Your task to perform on an android device: change the clock display to analog Image 0: 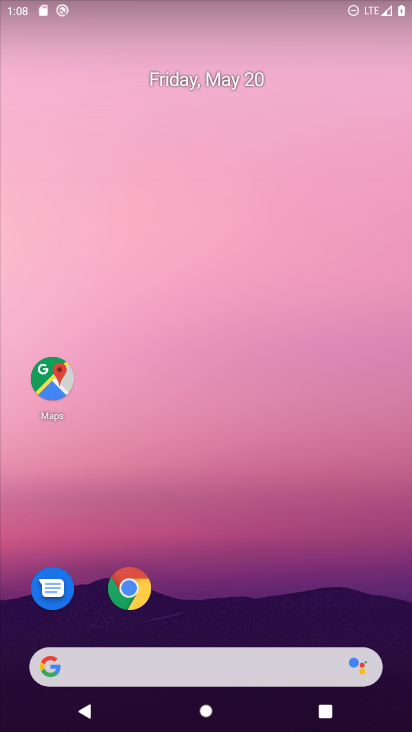
Step 0: drag from (368, 602) to (315, 229)
Your task to perform on an android device: change the clock display to analog Image 1: 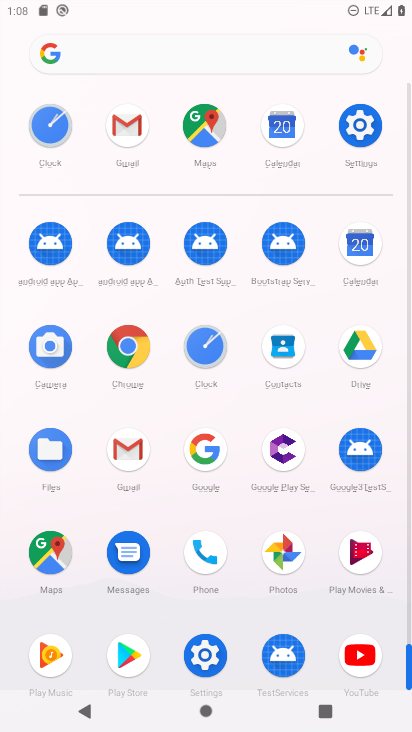
Step 1: click (203, 347)
Your task to perform on an android device: change the clock display to analog Image 2: 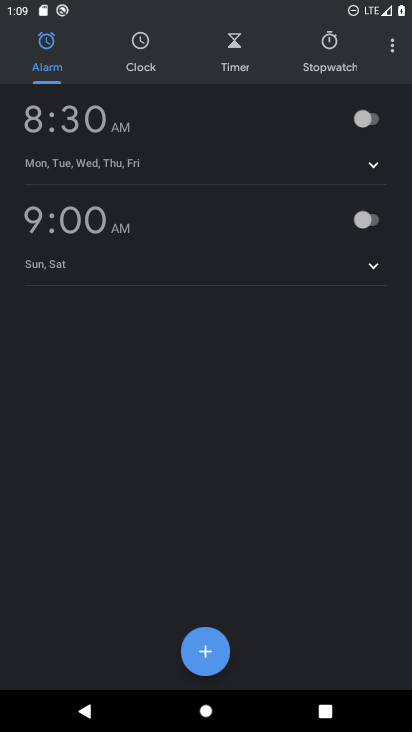
Step 2: click (394, 50)
Your task to perform on an android device: change the clock display to analog Image 3: 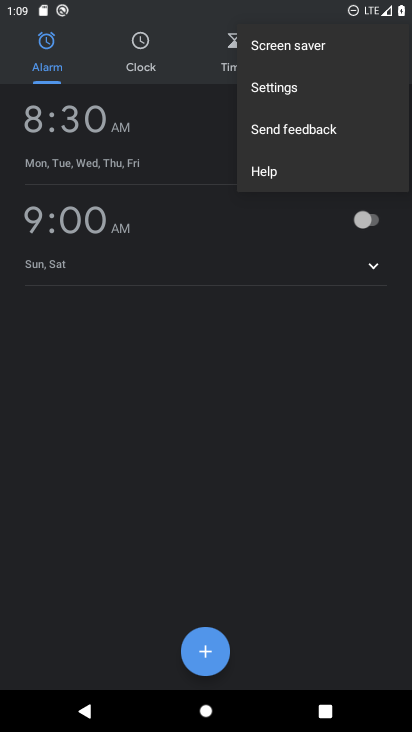
Step 3: click (264, 85)
Your task to perform on an android device: change the clock display to analog Image 4: 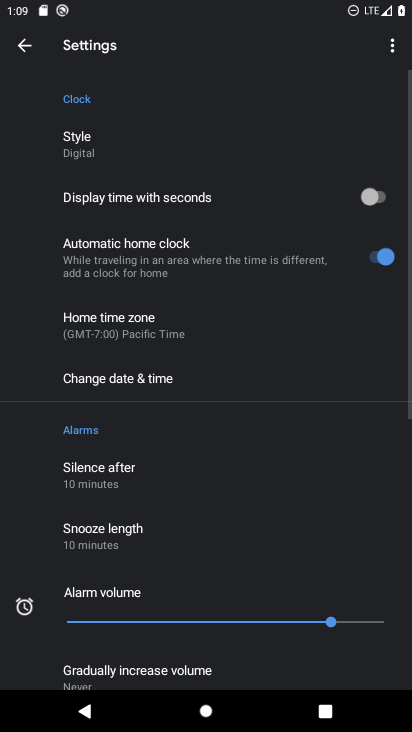
Step 4: click (70, 139)
Your task to perform on an android device: change the clock display to analog Image 5: 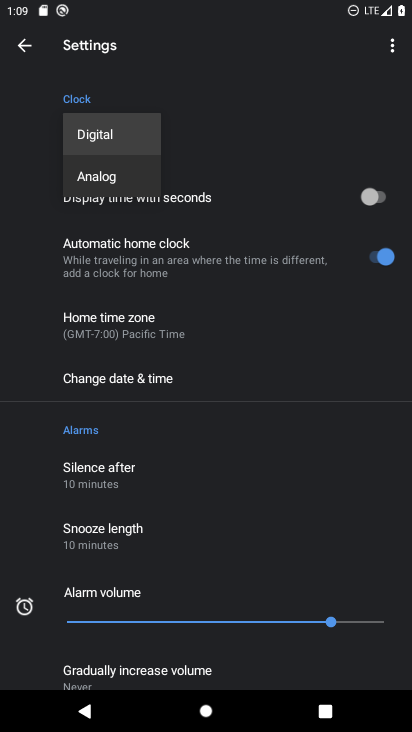
Step 5: click (97, 176)
Your task to perform on an android device: change the clock display to analog Image 6: 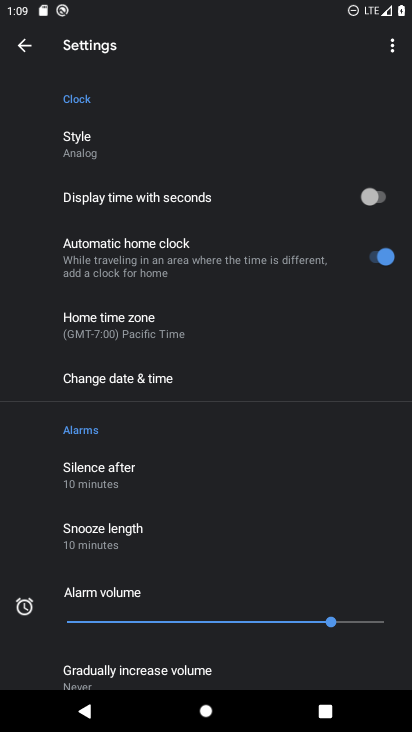
Step 6: task complete